Your task to perform on an android device: open chrome privacy settings Image 0: 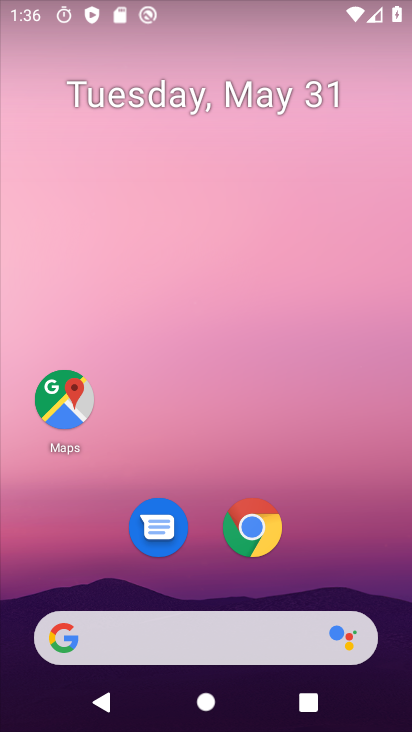
Step 0: drag from (161, 728) to (176, 113)
Your task to perform on an android device: open chrome privacy settings Image 1: 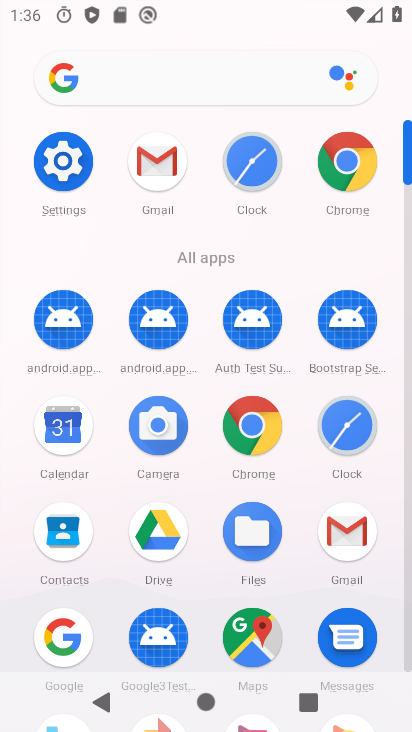
Step 1: click (356, 171)
Your task to perform on an android device: open chrome privacy settings Image 2: 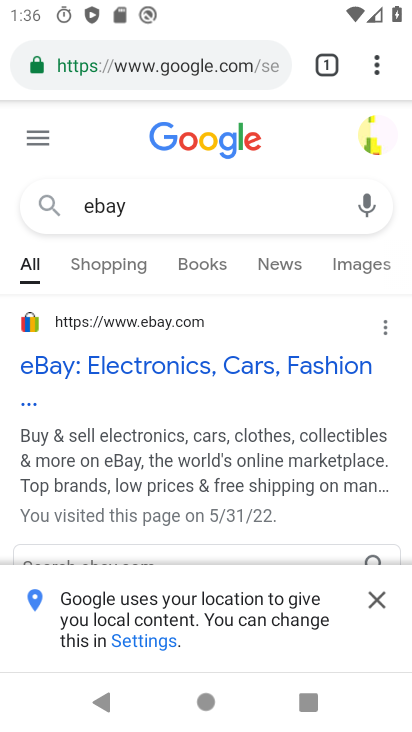
Step 2: click (376, 69)
Your task to perform on an android device: open chrome privacy settings Image 3: 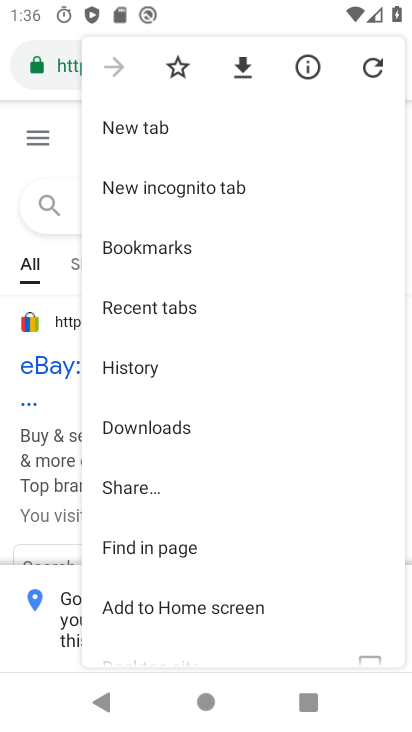
Step 3: drag from (246, 599) to (294, 170)
Your task to perform on an android device: open chrome privacy settings Image 4: 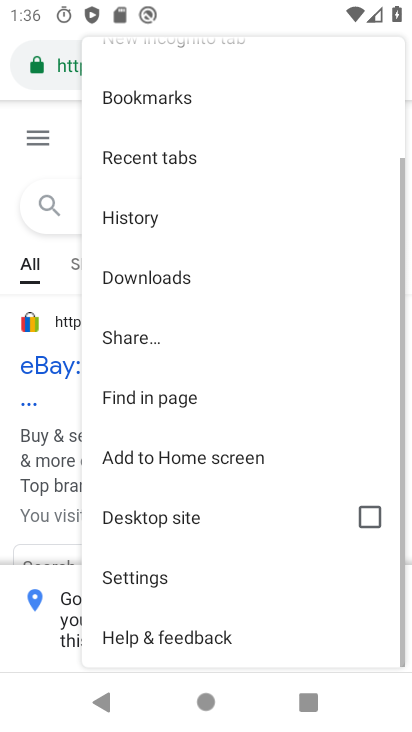
Step 4: click (153, 587)
Your task to perform on an android device: open chrome privacy settings Image 5: 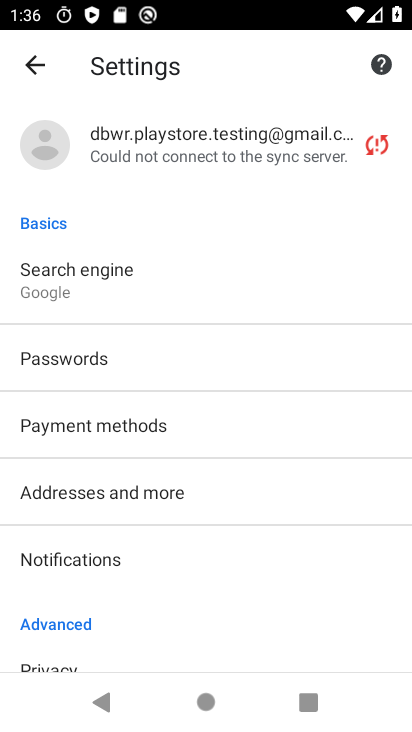
Step 5: drag from (140, 609) to (121, 215)
Your task to perform on an android device: open chrome privacy settings Image 6: 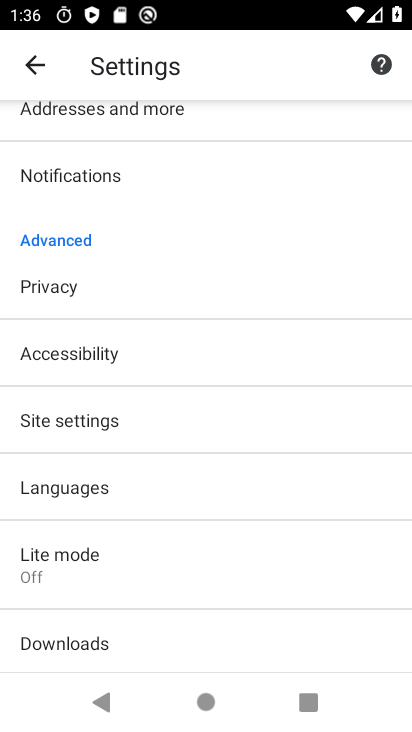
Step 6: click (72, 286)
Your task to perform on an android device: open chrome privacy settings Image 7: 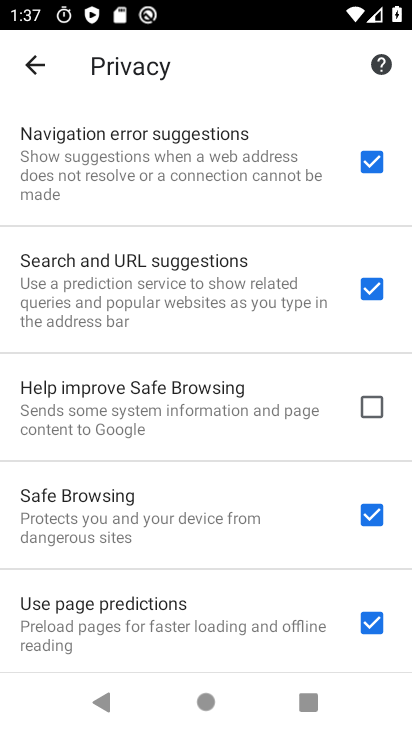
Step 7: task complete